Your task to perform on an android device: Show the shopping cart on walmart. Add "logitech g910" to the cart on walmart, then select checkout. Image 0: 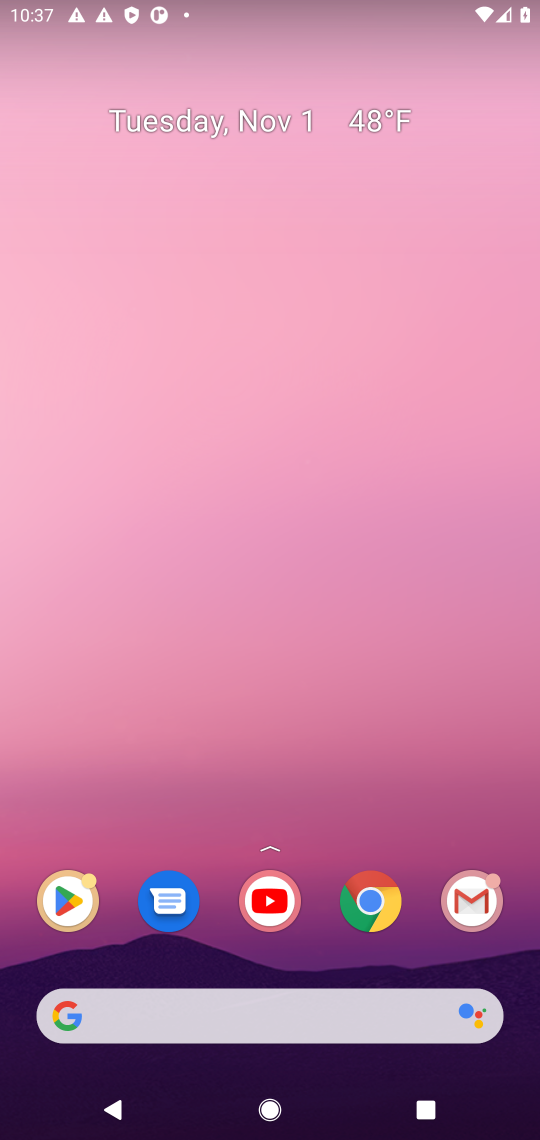
Step 0: drag from (315, 966) to (416, 77)
Your task to perform on an android device: Show the shopping cart on walmart. Add "logitech g910" to the cart on walmart, then select checkout. Image 1: 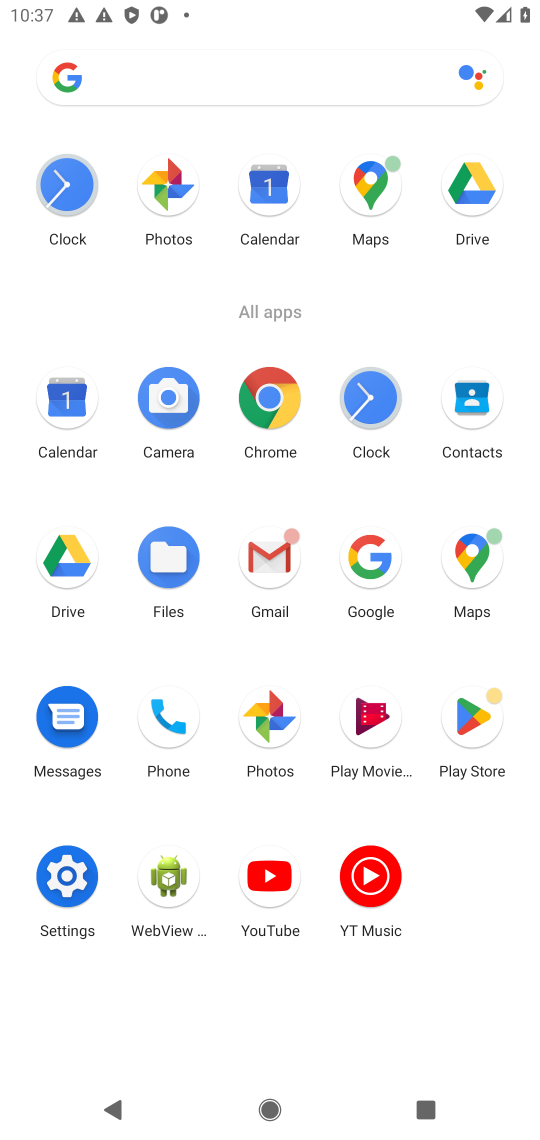
Step 1: click (277, 402)
Your task to perform on an android device: Show the shopping cart on walmart. Add "logitech g910" to the cart on walmart, then select checkout. Image 2: 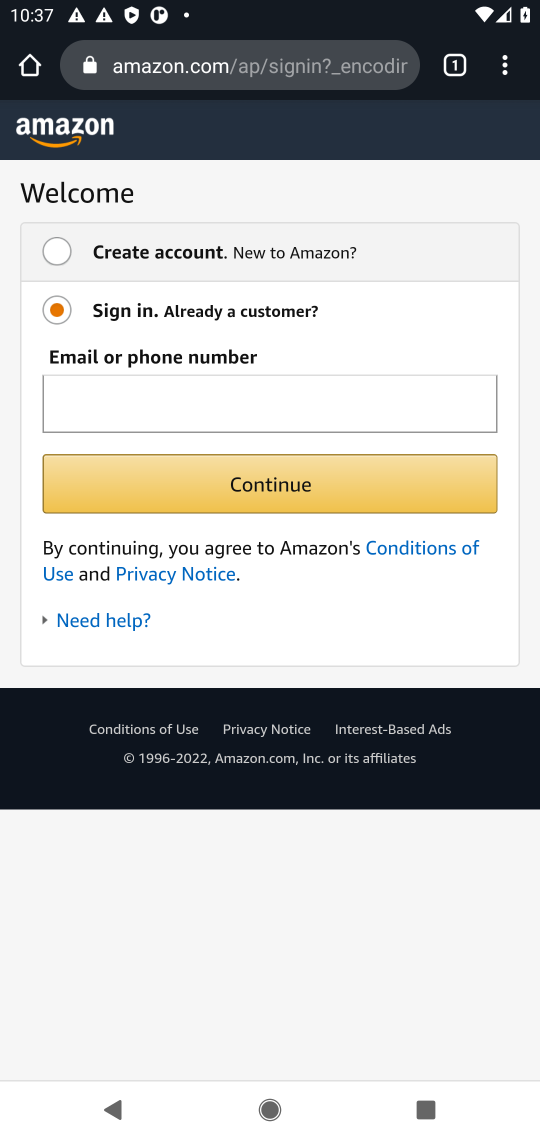
Step 2: click (257, 74)
Your task to perform on an android device: Show the shopping cart on walmart. Add "logitech g910" to the cart on walmart, then select checkout. Image 3: 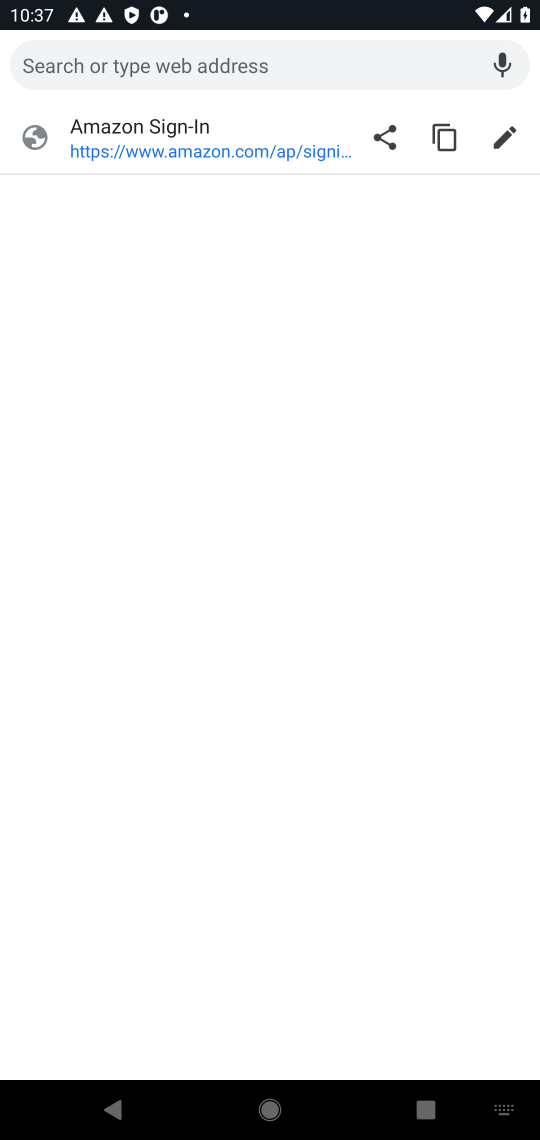
Step 3: type "walmart.com"
Your task to perform on an android device: Show the shopping cart on walmart. Add "logitech g910" to the cart on walmart, then select checkout. Image 4: 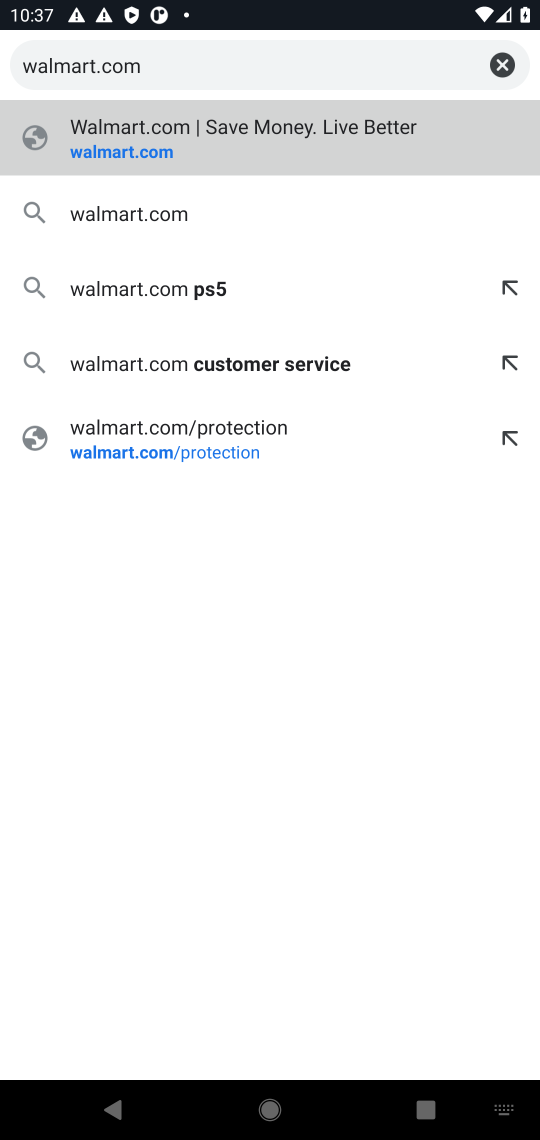
Step 4: press enter
Your task to perform on an android device: Show the shopping cart on walmart. Add "logitech g910" to the cart on walmart, then select checkout. Image 5: 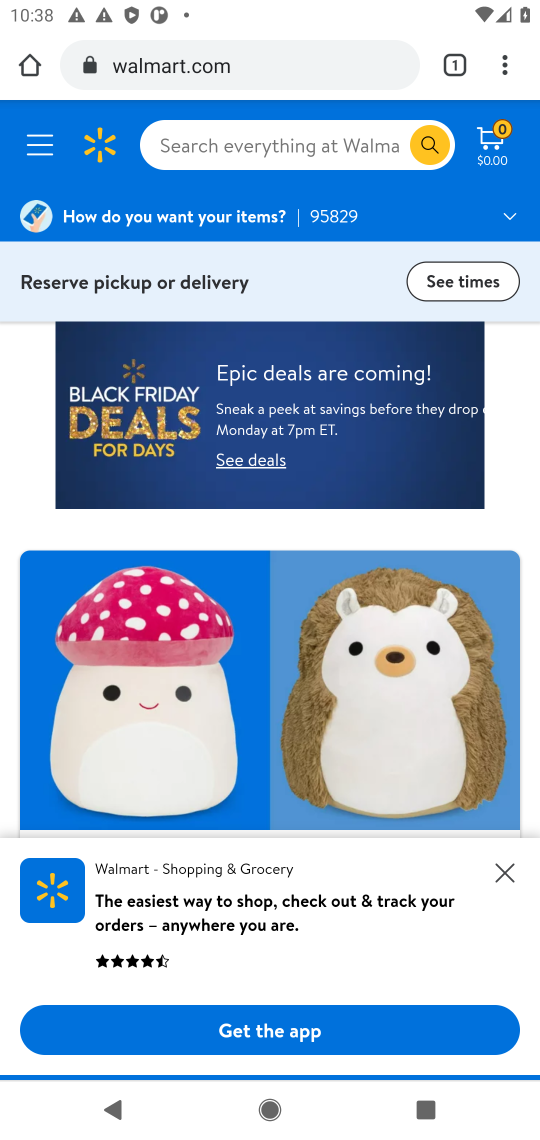
Step 5: click (511, 134)
Your task to perform on an android device: Show the shopping cart on walmart. Add "logitech g910" to the cart on walmart, then select checkout. Image 6: 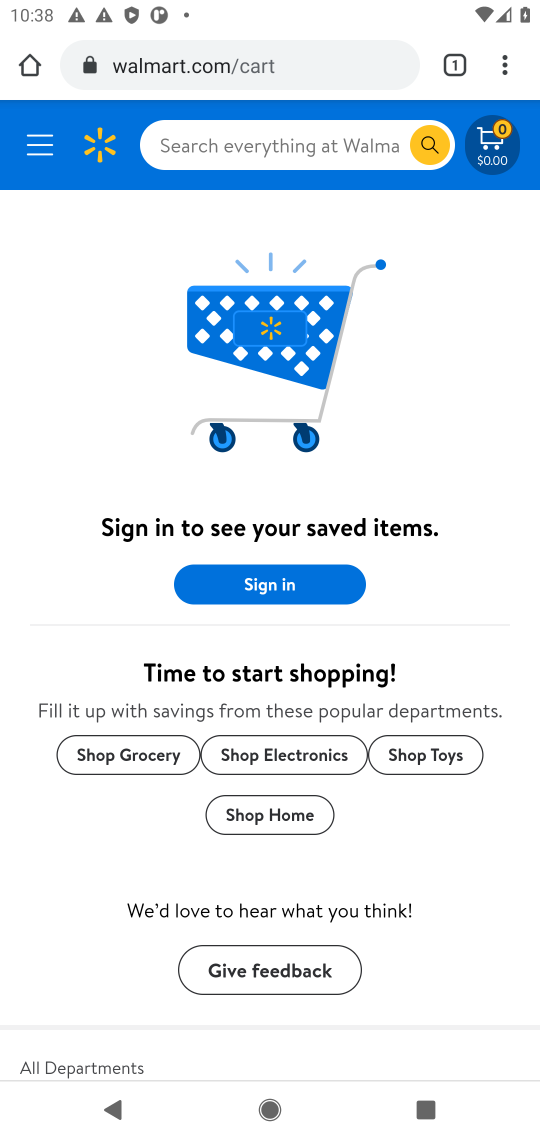
Step 6: click (325, 134)
Your task to perform on an android device: Show the shopping cart on walmart. Add "logitech g910" to the cart on walmart, then select checkout. Image 7: 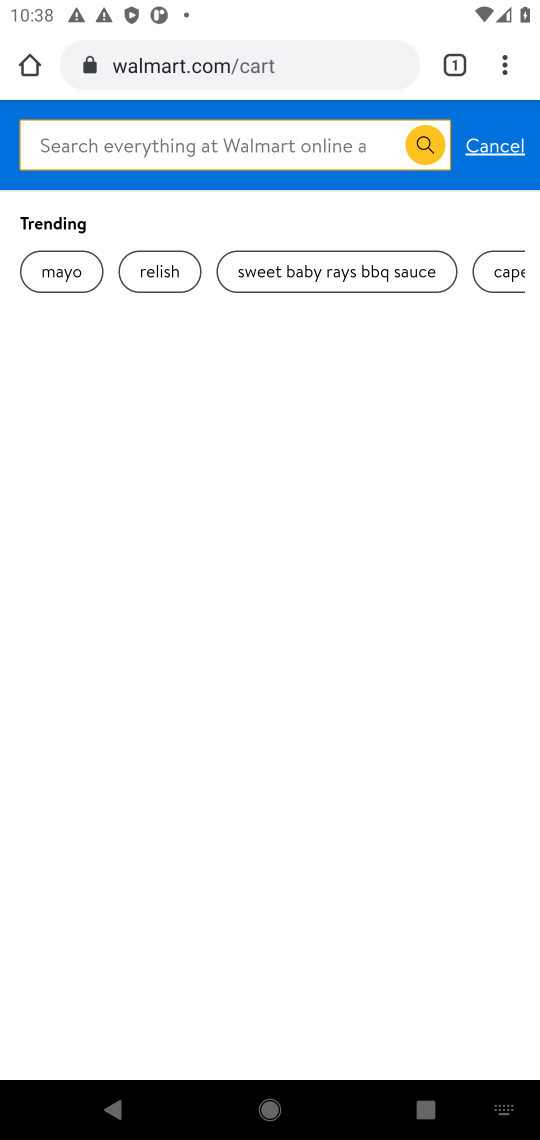
Step 7: type "logitech g910"
Your task to perform on an android device: Show the shopping cart on walmart. Add "logitech g910" to the cart on walmart, then select checkout. Image 8: 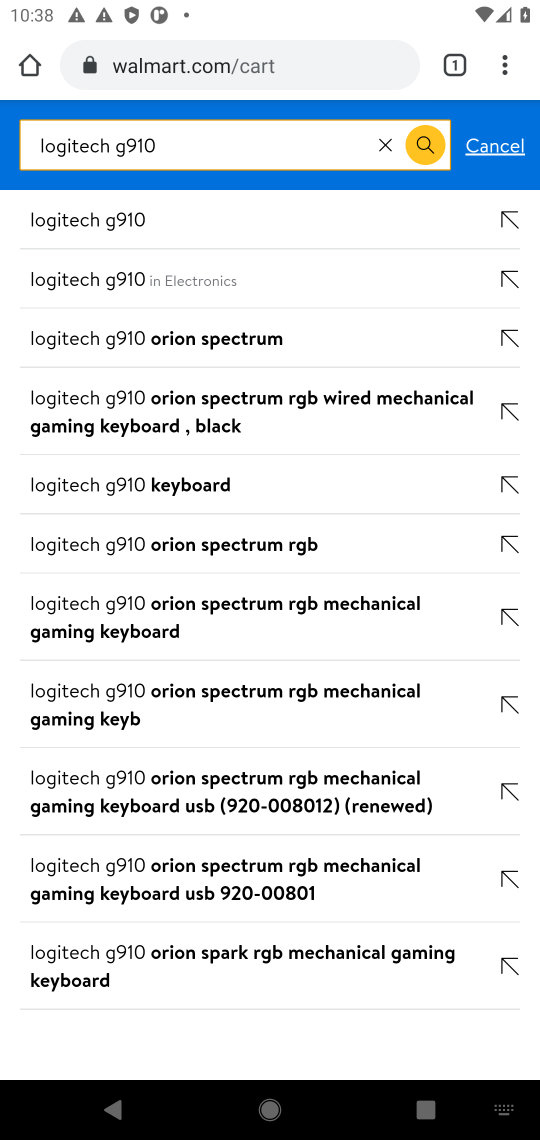
Step 8: press enter
Your task to perform on an android device: Show the shopping cart on walmart. Add "logitech g910" to the cart on walmart, then select checkout. Image 9: 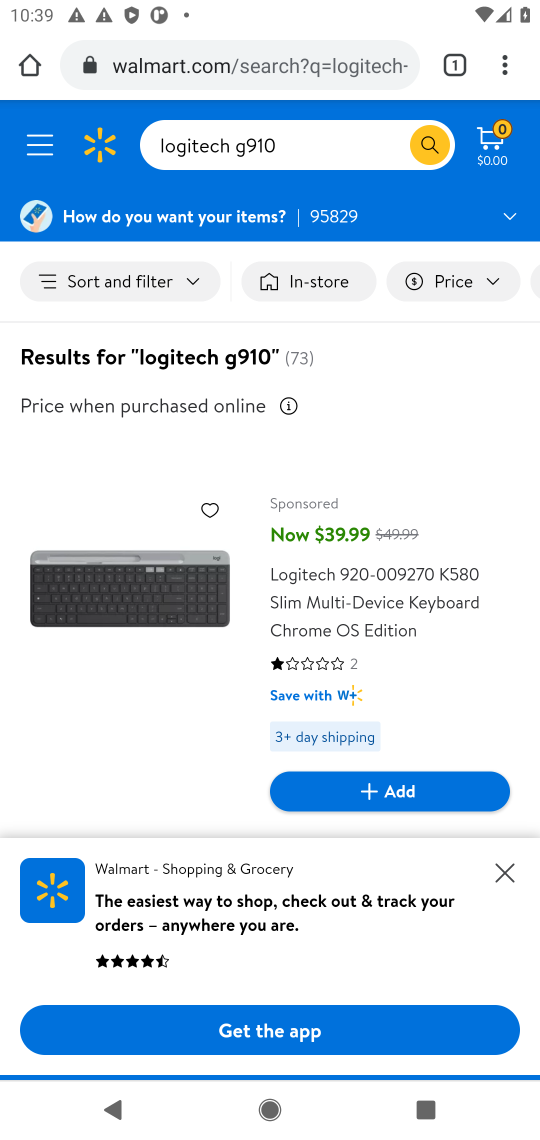
Step 9: drag from (401, 633) to (412, 167)
Your task to perform on an android device: Show the shopping cart on walmart. Add "logitech g910" to the cart on walmart, then select checkout. Image 10: 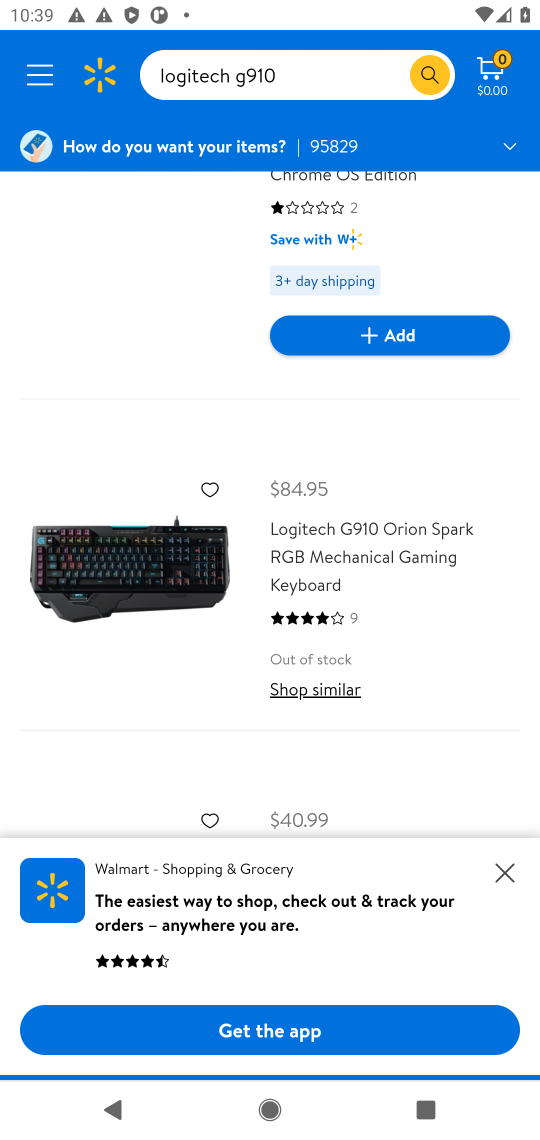
Step 10: drag from (413, 756) to (431, 480)
Your task to perform on an android device: Show the shopping cart on walmart. Add "logitech g910" to the cart on walmart, then select checkout. Image 11: 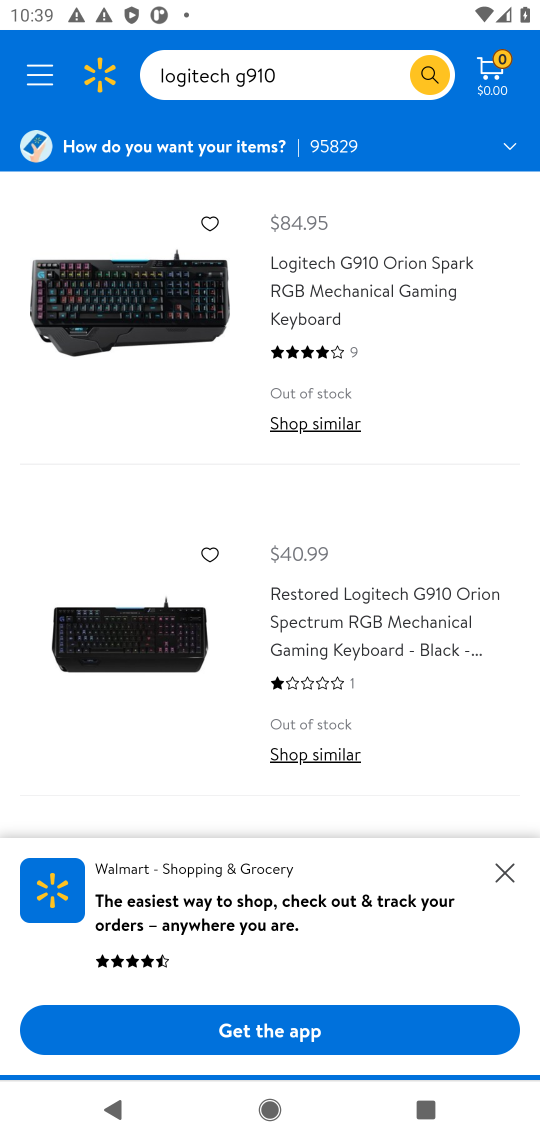
Step 11: click (116, 299)
Your task to perform on an android device: Show the shopping cart on walmart. Add "logitech g910" to the cart on walmart, then select checkout. Image 12: 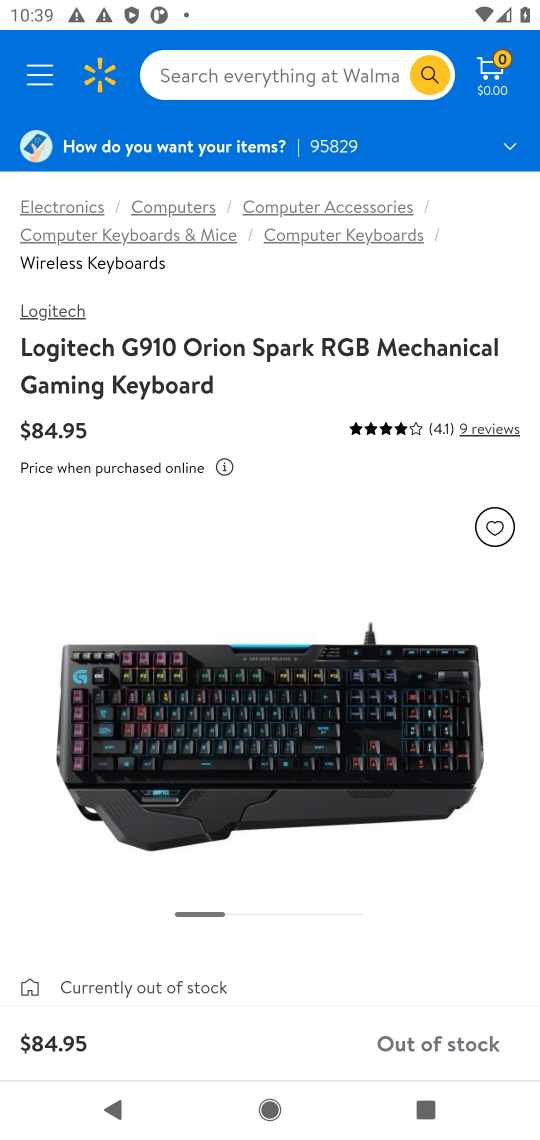
Step 12: task complete